Your task to perform on an android device: check storage Image 0: 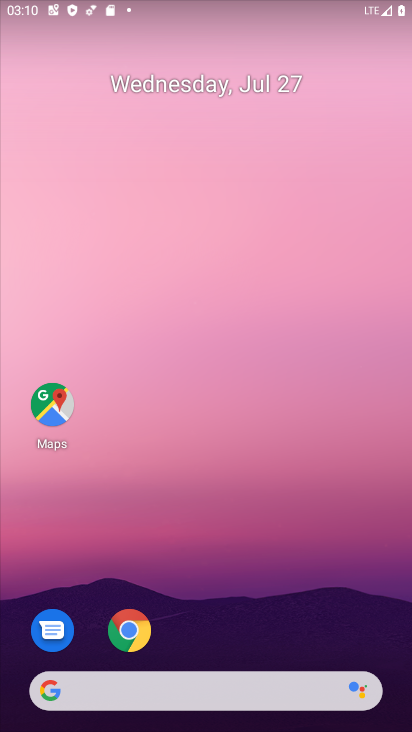
Step 0: drag from (225, 608) to (112, 1)
Your task to perform on an android device: check storage Image 1: 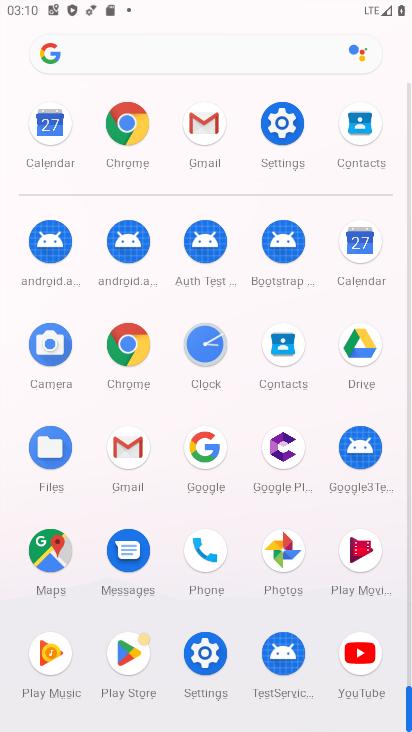
Step 1: drag from (239, 529) to (191, 6)
Your task to perform on an android device: check storage Image 2: 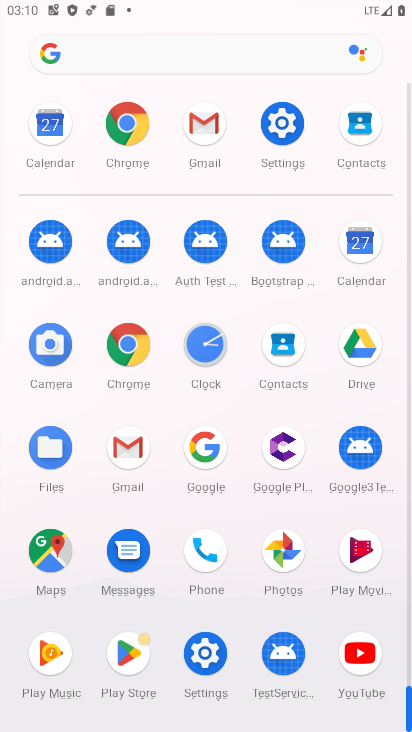
Step 2: click (285, 127)
Your task to perform on an android device: check storage Image 3: 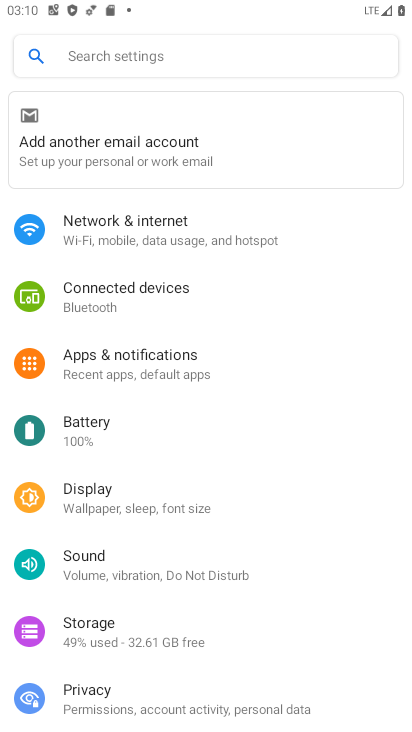
Step 3: click (103, 635)
Your task to perform on an android device: check storage Image 4: 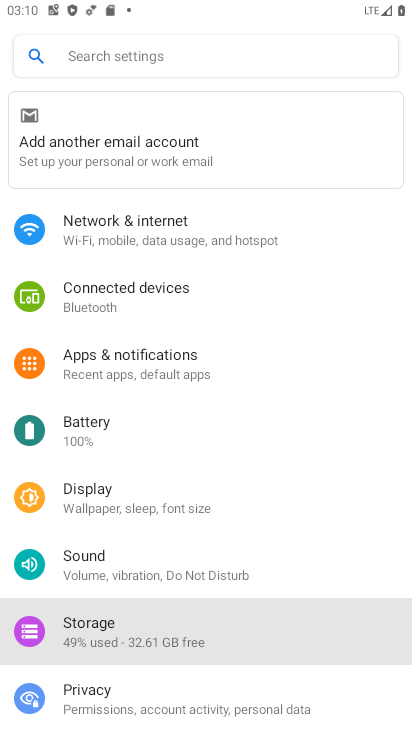
Step 4: click (105, 641)
Your task to perform on an android device: check storage Image 5: 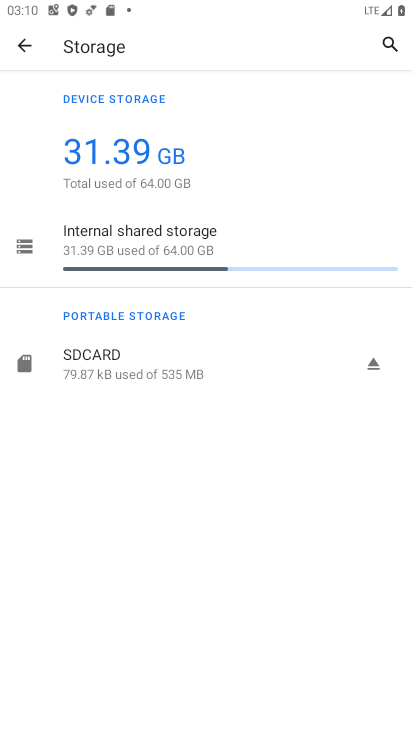
Step 5: task complete